Your task to perform on an android device: Open Reddit.com Image 0: 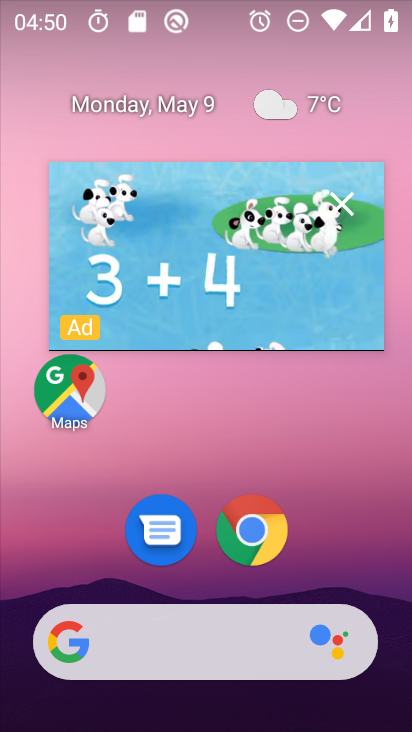
Step 0: click (185, 255)
Your task to perform on an android device: Open Reddit.com Image 1: 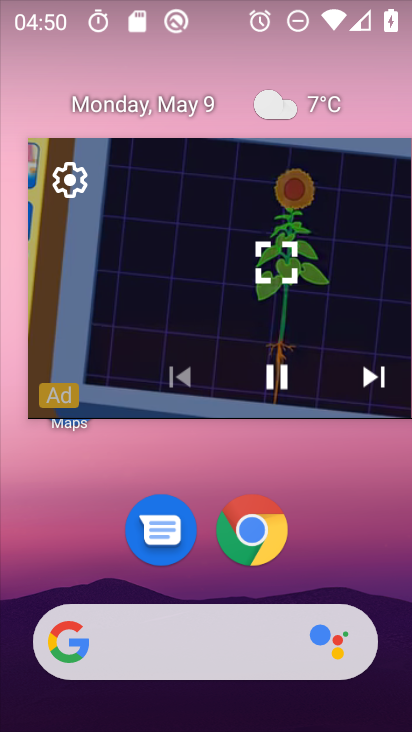
Step 1: click (276, 376)
Your task to perform on an android device: Open Reddit.com Image 2: 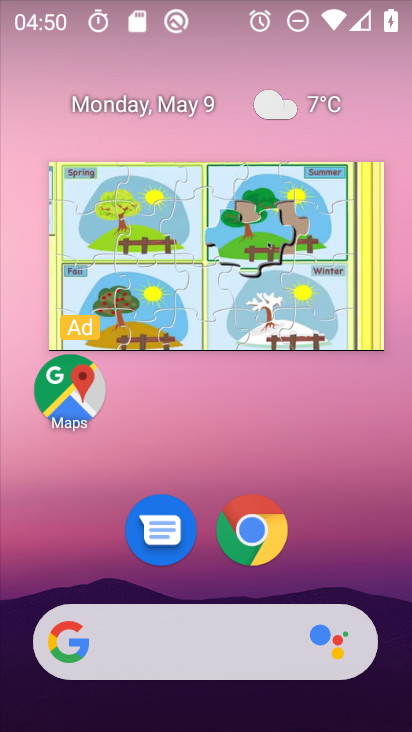
Step 2: click (200, 267)
Your task to perform on an android device: Open Reddit.com Image 3: 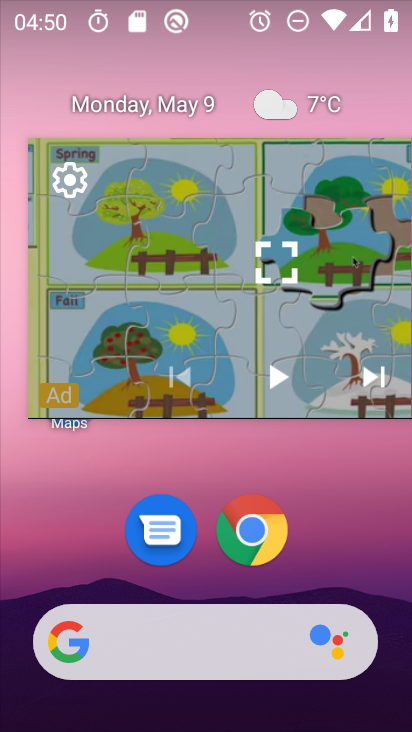
Step 3: click (212, 251)
Your task to perform on an android device: Open Reddit.com Image 4: 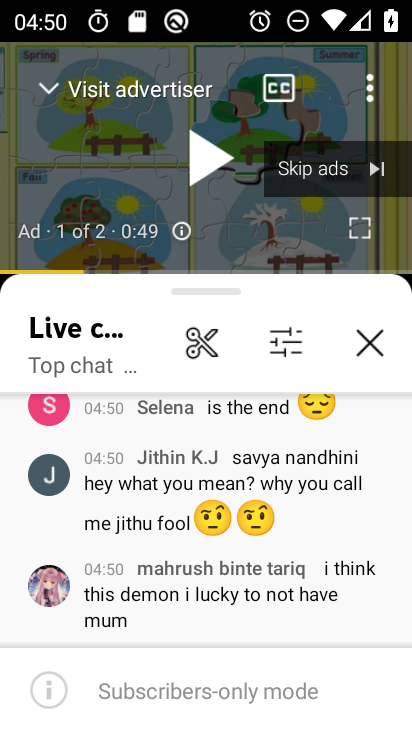
Step 4: press home button
Your task to perform on an android device: Open Reddit.com Image 5: 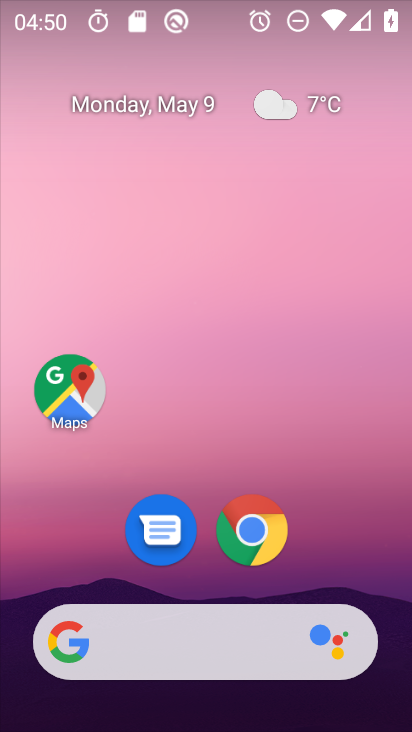
Step 5: click (260, 530)
Your task to perform on an android device: Open Reddit.com Image 6: 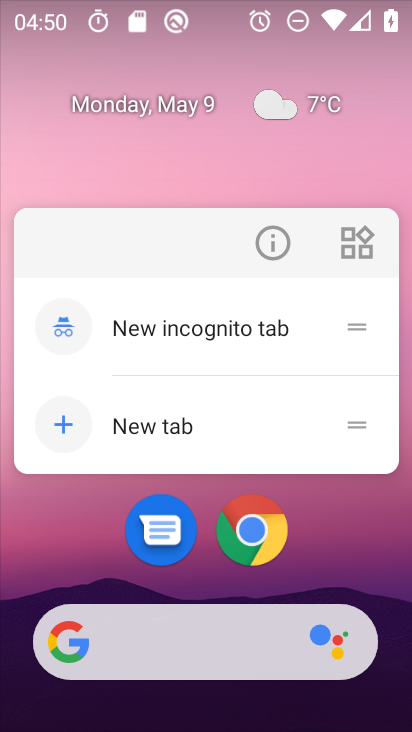
Step 6: click (257, 516)
Your task to perform on an android device: Open Reddit.com Image 7: 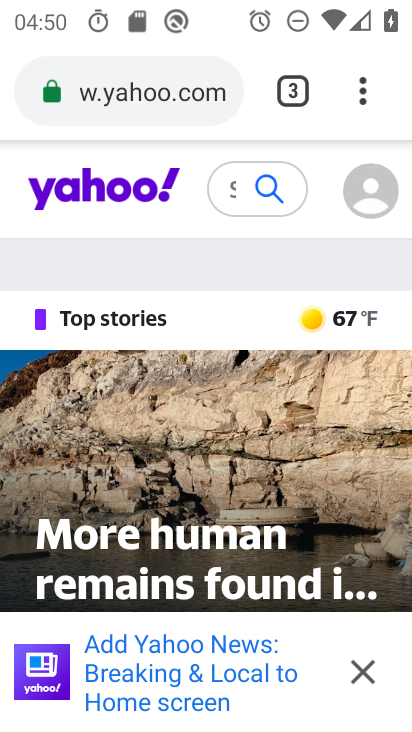
Step 7: click (283, 95)
Your task to perform on an android device: Open Reddit.com Image 8: 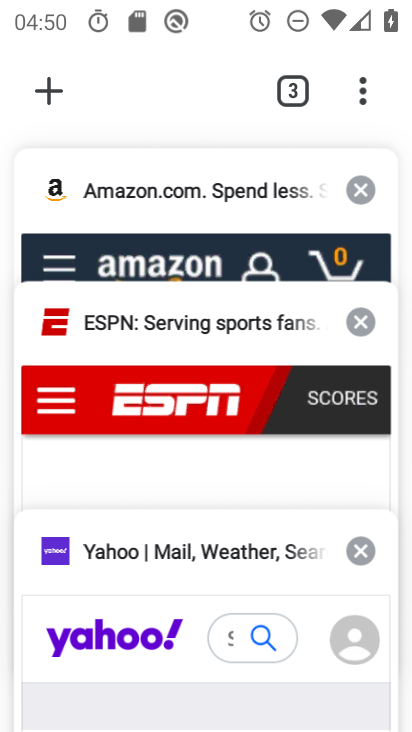
Step 8: click (31, 93)
Your task to perform on an android device: Open Reddit.com Image 9: 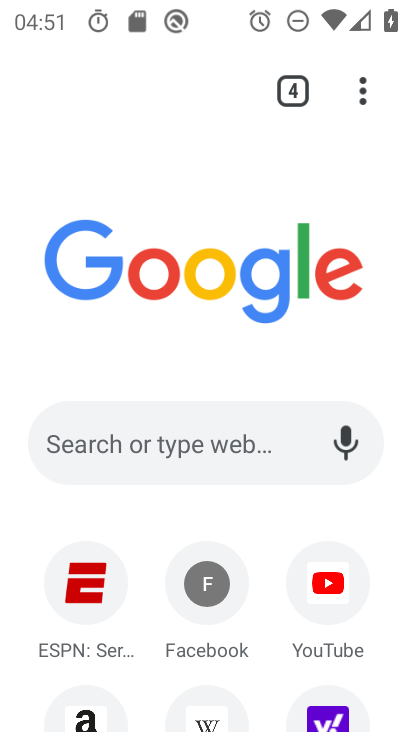
Step 9: click (122, 437)
Your task to perform on an android device: Open Reddit.com Image 10: 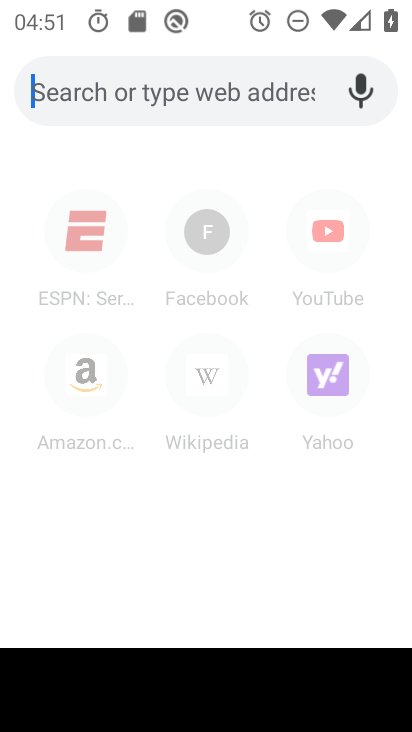
Step 10: type "reddit.com"
Your task to perform on an android device: Open Reddit.com Image 11: 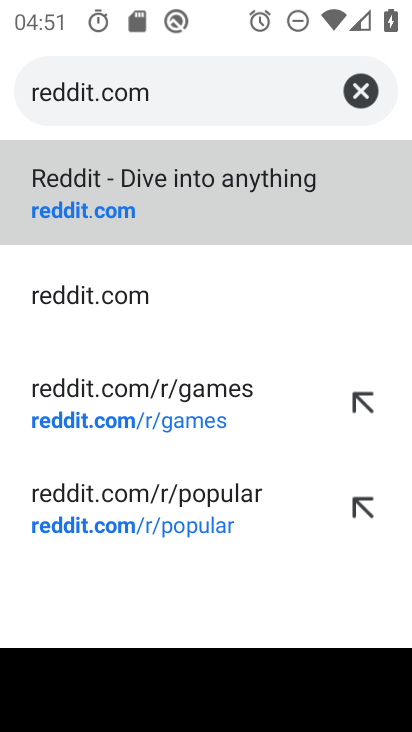
Step 11: click (125, 209)
Your task to perform on an android device: Open Reddit.com Image 12: 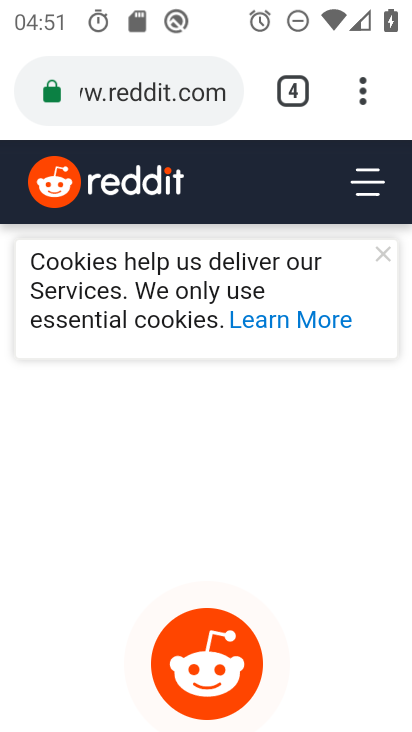
Step 12: task complete